Your task to perform on an android device: move an email to a new category in the gmail app Image 0: 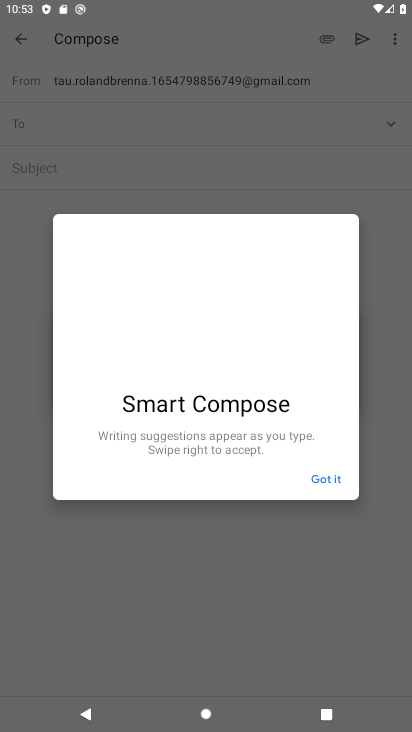
Step 0: press home button
Your task to perform on an android device: move an email to a new category in the gmail app Image 1: 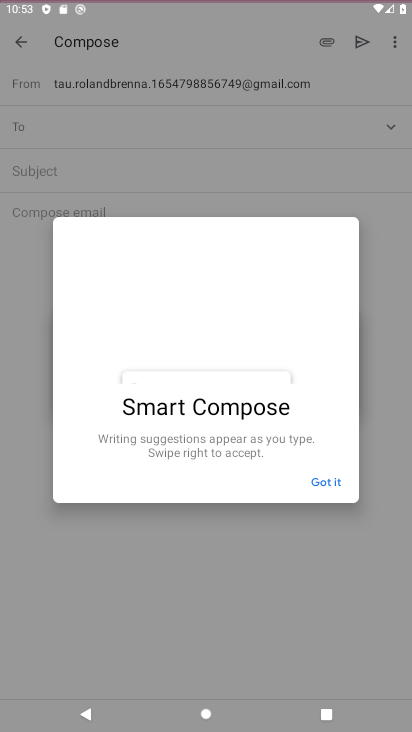
Step 1: drag from (387, 660) to (224, 40)
Your task to perform on an android device: move an email to a new category in the gmail app Image 2: 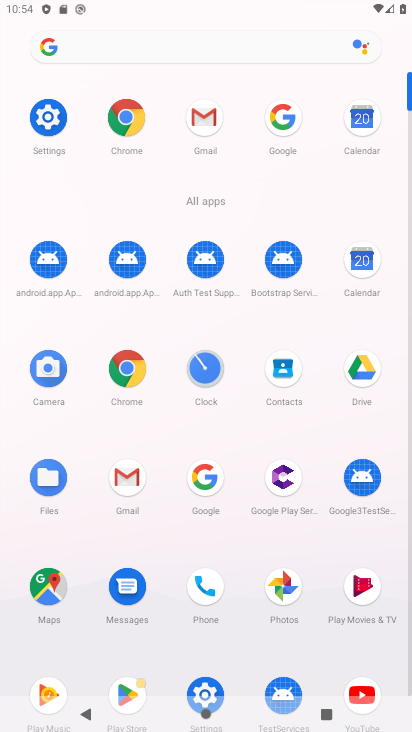
Step 2: click (130, 470)
Your task to perform on an android device: move an email to a new category in the gmail app Image 3: 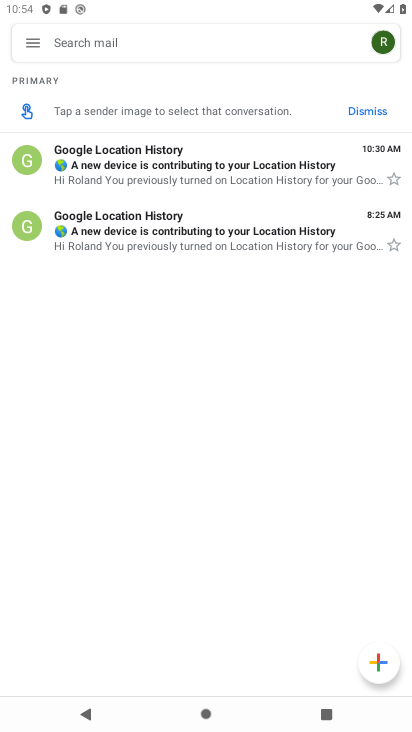
Step 3: task complete